Your task to perform on an android device: Open calendar and show me the second week of next month Image 0: 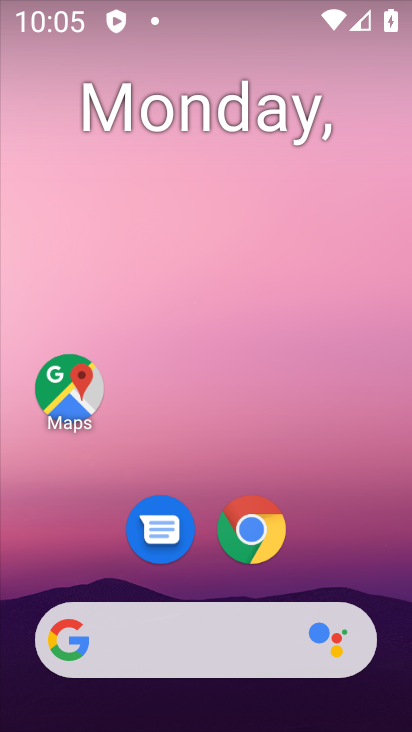
Step 0: drag from (330, 524) to (276, 19)
Your task to perform on an android device: Open calendar and show me the second week of next month Image 1: 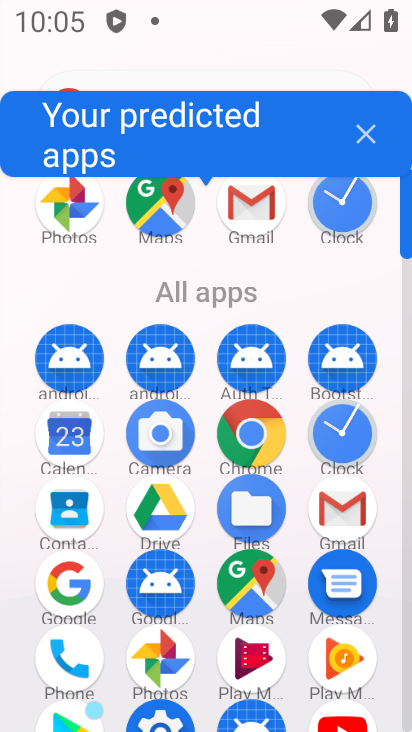
Step 1: click (64, 435)
Your task to perform on an android device: Open calendar and show me the second week of next month Image 2: 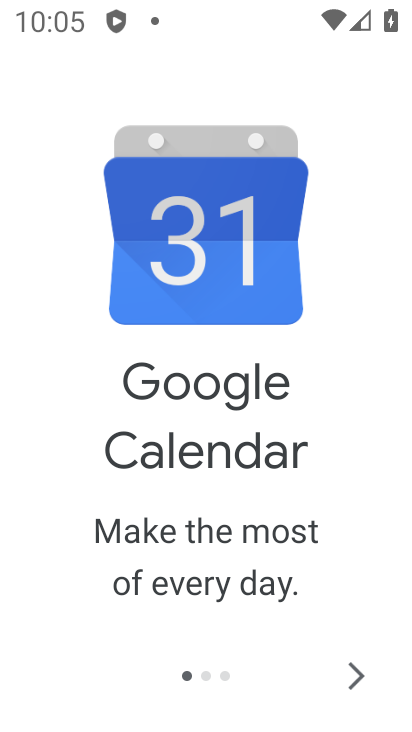
Step 2: click (356, 673)
Your task to perform on an android device: Open calendar and show me the second week of next month Image 3: 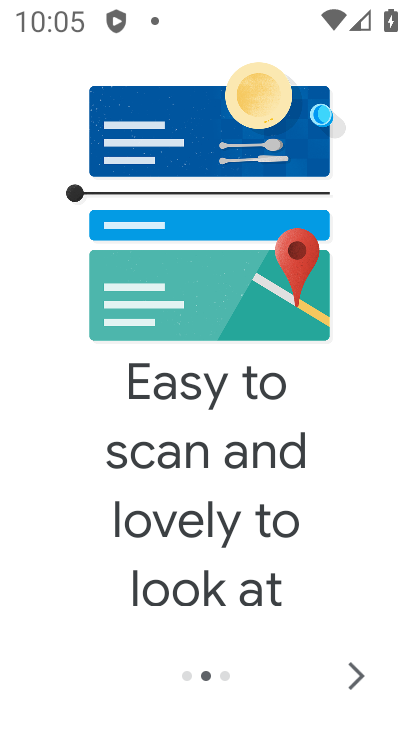
Step 3: click (356, 673)
Your task to perform on an android device: Open calendar and show me the second week of next month Image 4: 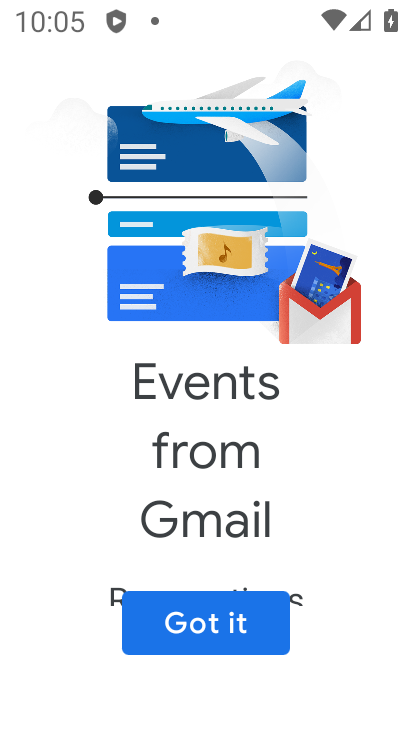
Step 4: click (205, 619)
Your task to perform on an android device: Open calendar and show me the second week of next month Image 5: 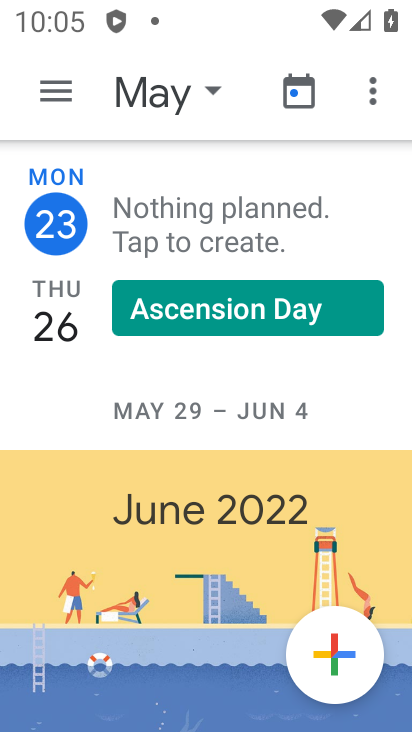
Step 5: click (64, 85)
Your task to perform on an android device: Open calendar and show me the second week of next month Image 6: 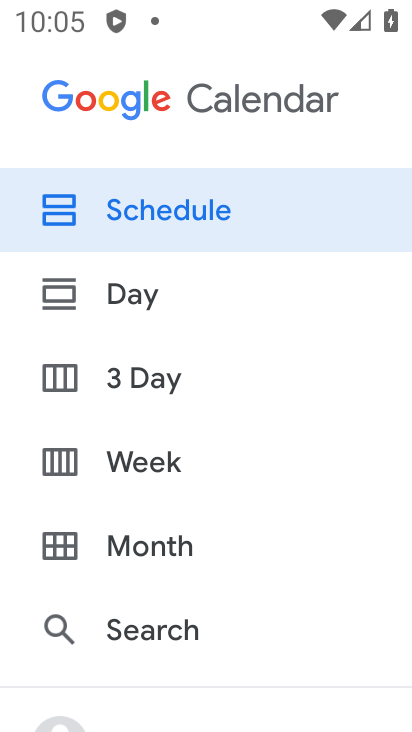
Step 6: click (148, 460)
Your task to perform on an android device: Open calendar and show me the second week of next month Image 7: 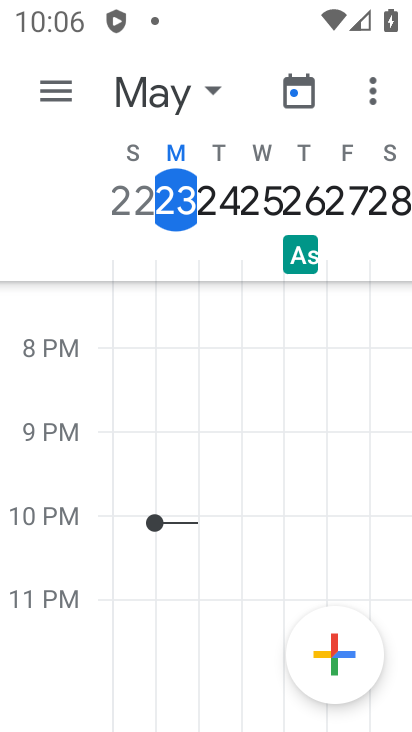
Step 7: click (210, 86)
Your task to perform on an android device: Open calendar and show me the second week of next month Image 8: 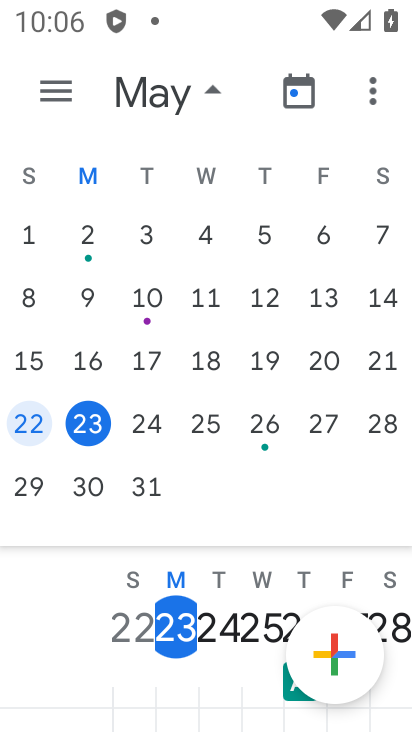
Step 8: drag from (349, 266) to (10, 301)
Your task to perform on an android device: Open calendar and show me the second week of next month Image 9: 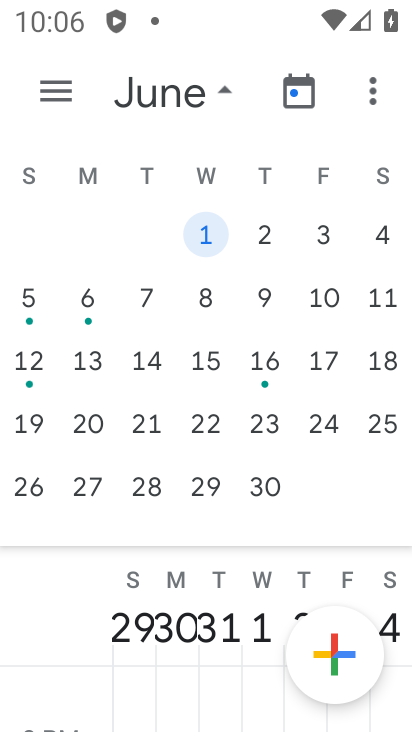
Step 9: click (205, 284)
Your task to perform on an android device: Open calendar and show me the second week of next month Image 10: 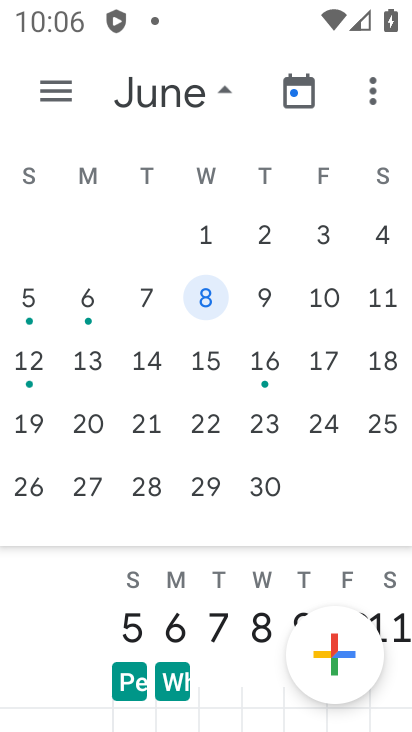
Step 10: task complete